Your task to perform on an android device: Search for a new lawnmower on Lowes. Image 0: 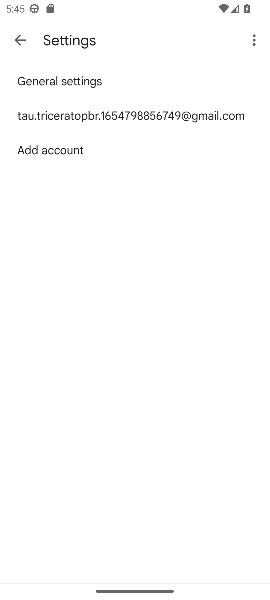
Step 0: press home button
Your task to perform on an android device: Search for a new lawnmower on Lowes. Image 1: 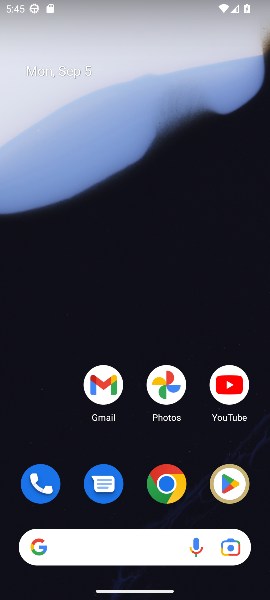
Step 1: click (164, 479)
Your task to perform on an android device: Search for a new lawnmower on Lowes. Image 2: 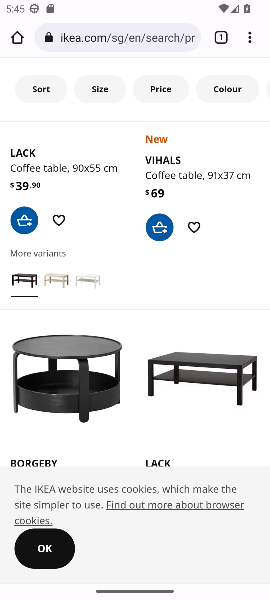
Step 2: click (167, 33)
Your task to perform on an android device: Search for a new lawnmower on Lowes. Image 3: 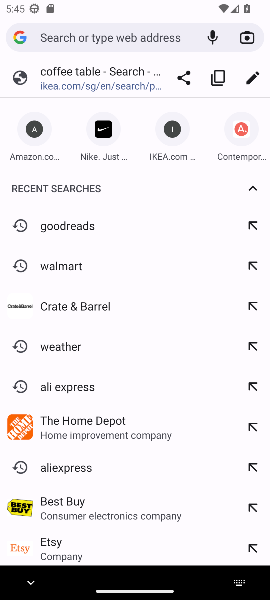
Step 3: type " Lowes"
Your task to perform on an android device: Search for a new lawnmower on Lowes. Image 4: 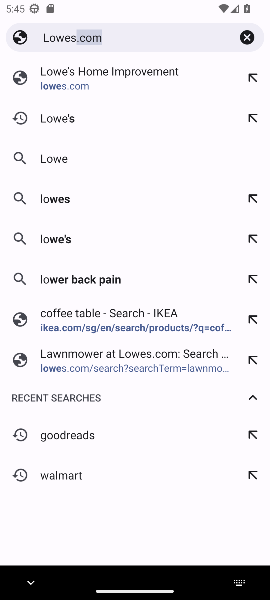
Step 4: press enter
Your task to perform on an android device: Search for a new lawnmower on Lowes. Image 5: 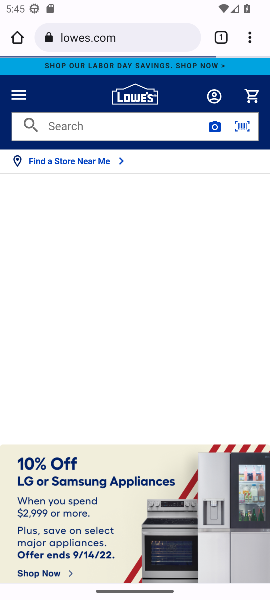
Step 5: click (134, 125)
Your task to perform on an android device: Search for a new lawnmower on Lowes. Image 6: 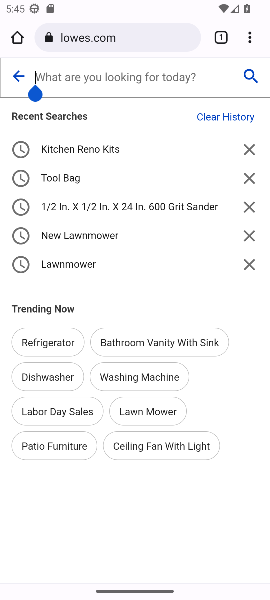
Step 6: type "awnmower"
Your task to perform on an android device: Search for a new lawnmower on Lowes. Image 7: 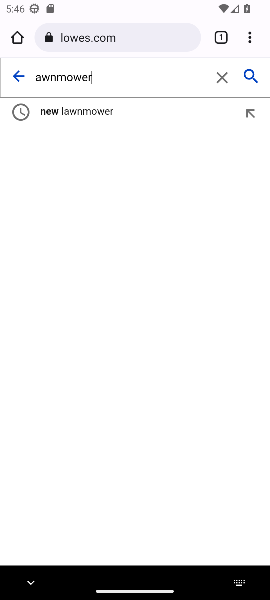
Step 7: click (218, 75)
Your task to perform on an android device: Search for a new lawnmower on Lowes. Image 8: 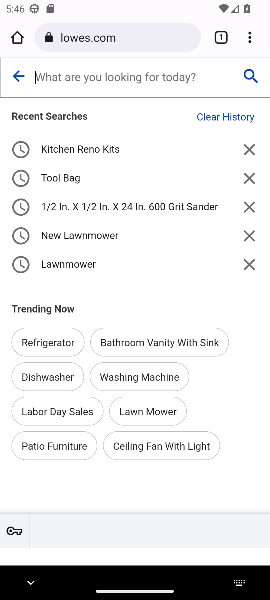
Step 8: type "lawnmower"
Your task to perform on an android device: Search for a new lawnmower on Lowes. Image 9: 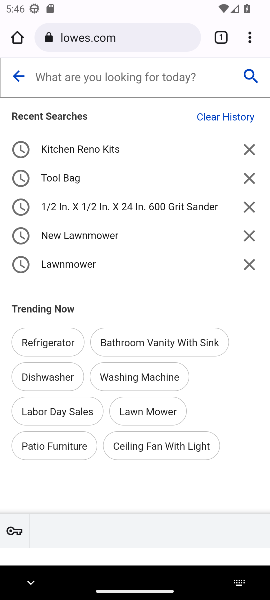
Step 9: press enter
Your task to perform on an android device: Search for a new lawnmower on Lowes. Image 10: 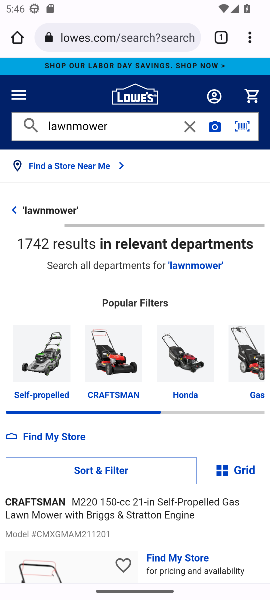
Step 10: task complete